Your task to perform on an android device: Search for seafood restaurants on Google Maps Image 0: 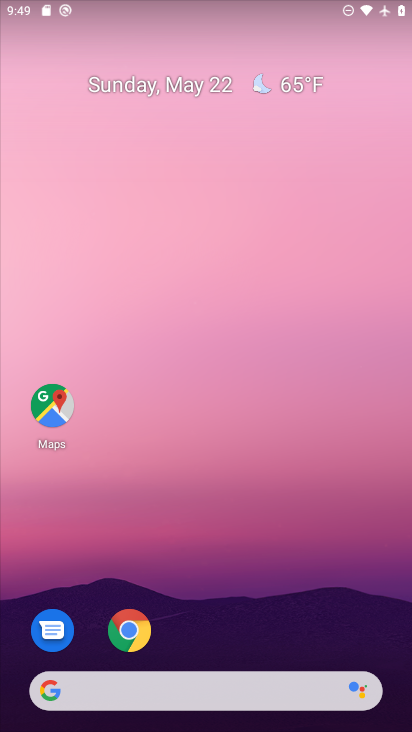
Step 0: press home button
Your task to perform on an android device: Search for seafood restaurants on Google Maps Image 1: 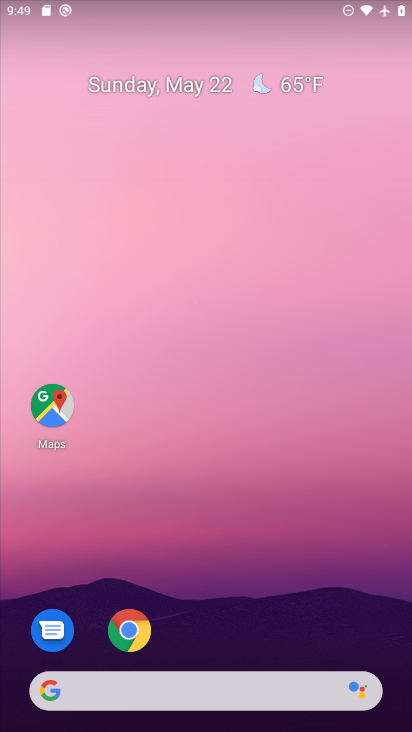
Step 1: click (49, 409)
Your task to perform on an android device: Search for seafood restaurants on Google Maps Image 2: 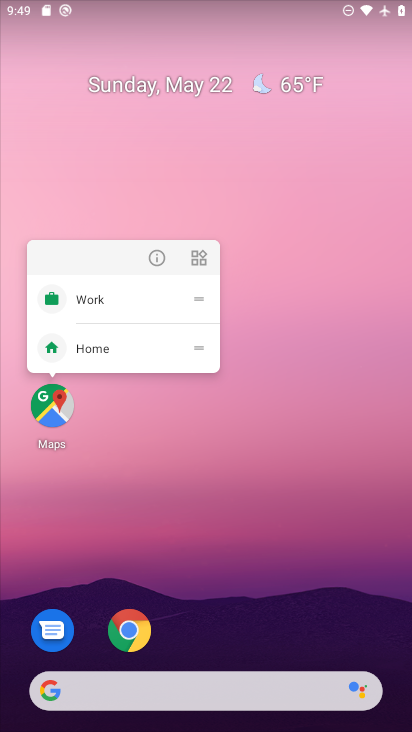
Step 2: click (52, 415)
Your task to perform on an android device: Search for seafood restaurants on Google Maps Image 3: 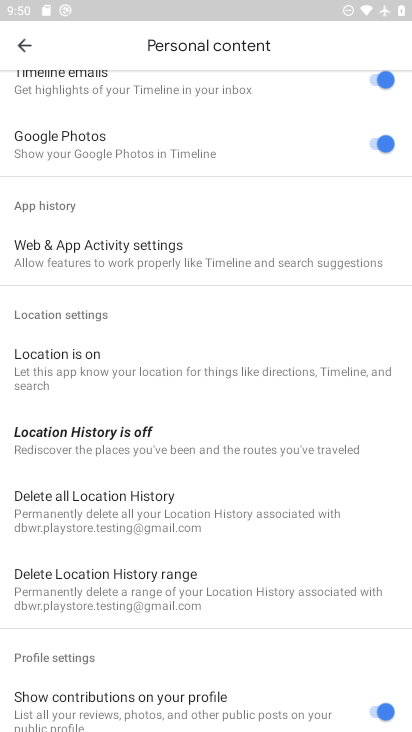
Step 3: click (28, 45)
Your task to perform on an android device: Search for seafood restaurants on Google Maps Image 4: 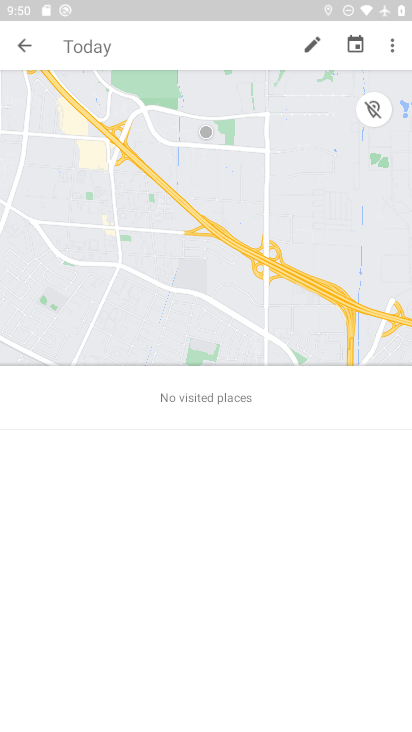
Step 4: click (28, 46)
Your task to perform on an android device: Search for seafood restaurants on Google Maps Image 5: 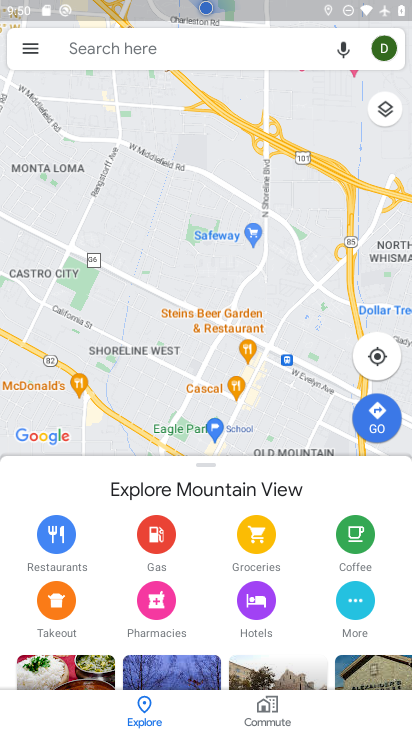
Step 5: click (248, 40)
Your task to perform on an android device: Search for seafood restaurants on Google Maps Image 6: 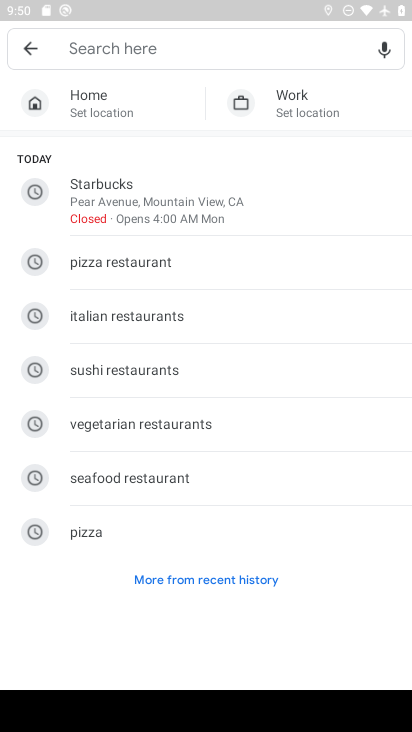
Step 6: click (146, 479)
Your task to perform on an android device: Search for seafood restaurants on Google Maps Image 7: 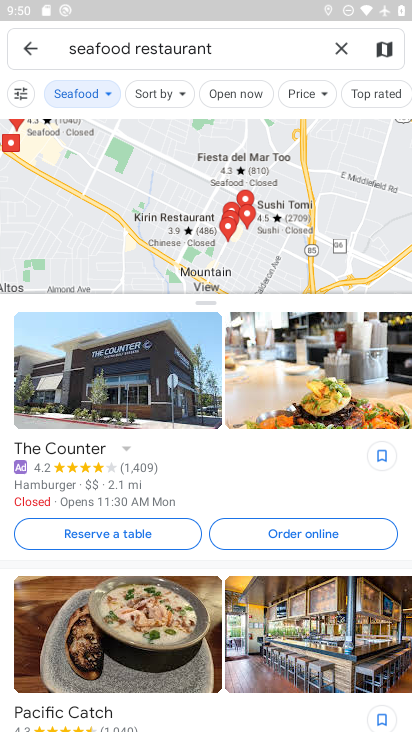
Step 7: task complete